Your task to perform on an android device: toggle pop-ups in chrome Image 0: 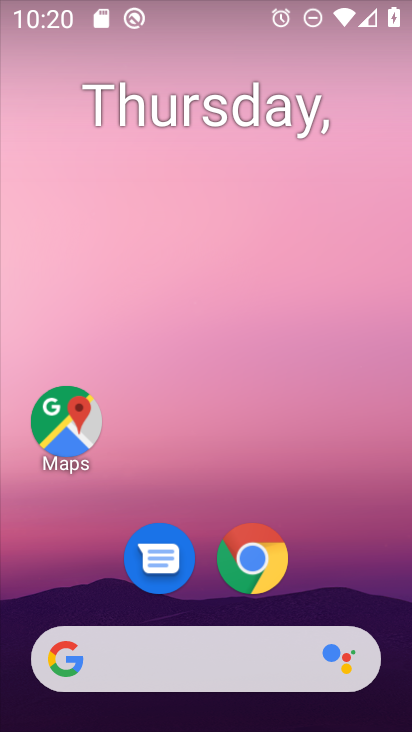
Step 0: click (254, 565)
Your task to perform on an android device: toggle pop-ups in chrome Image 1: 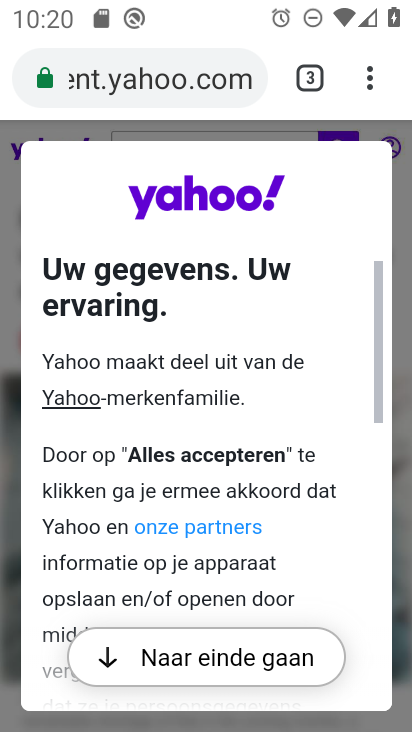
Step 1: click (363, 84)
Your task to perform on an android device: toggle pop-ups in chrome Image 2: 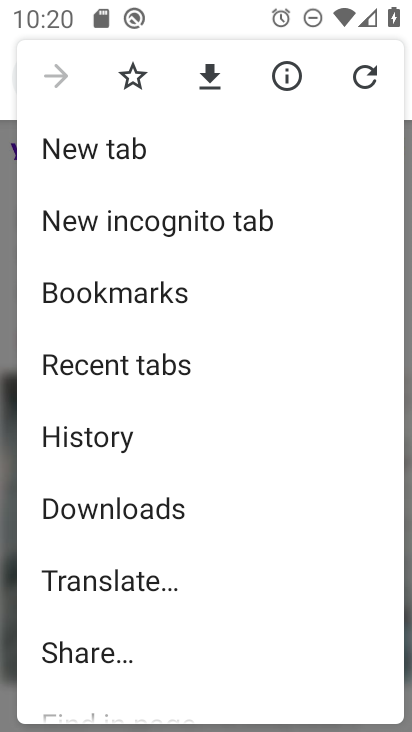
Step 2: drag from (212, 576) to (294, 122)
Your task to perform on an android device: toggle pop-ups in chrome Image 3: 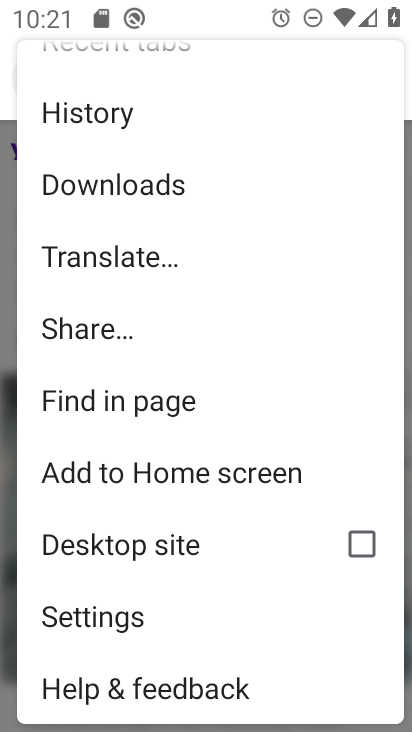
Step 3: click (74, 619)
Your task to perform on an android device: toggle pop-ups in chrome Image 4: 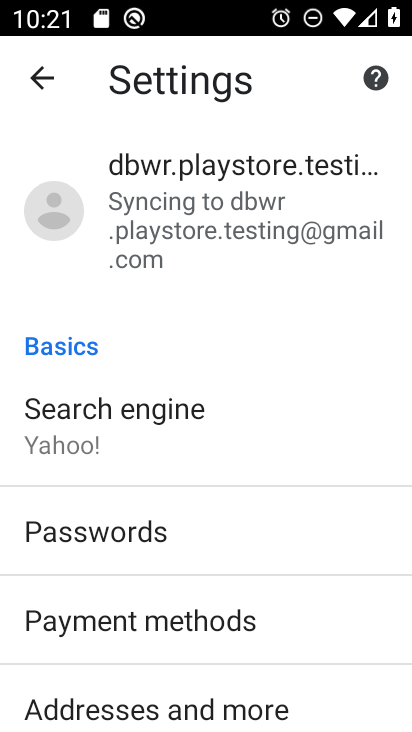
Step 4: drag from (303, 661) to (303, 220)
Your task to perform on an android device: toggle pop-ups in chrome Image 5: 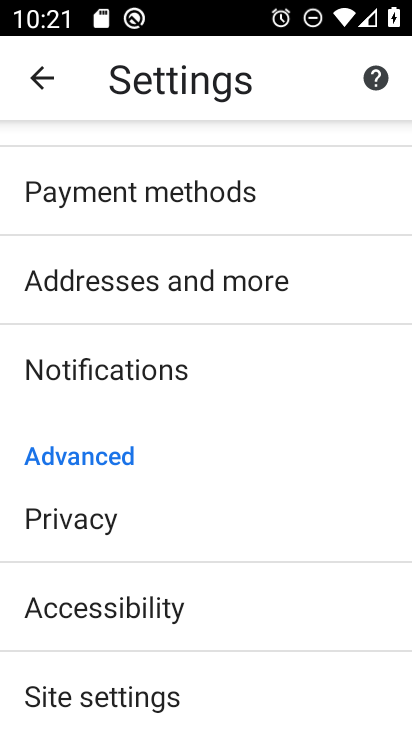
Step 5: drag from (238, 656) to (299, 207)
Your task to perform on an android device: toggle pop-ups in chrome Image 6: 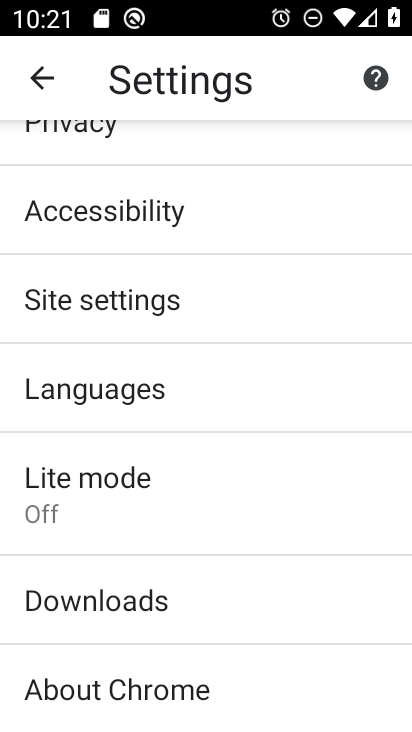
Step 6: click (71, 295)
Your task to perform on an android device: toggle pop-ups in chrome Image 7: 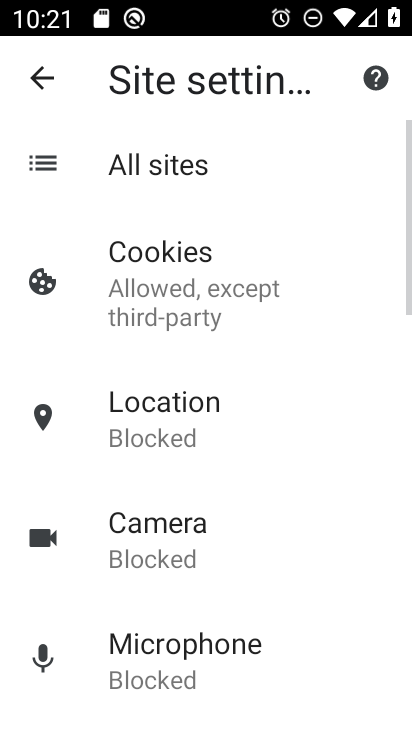
Step 7: drag from (289, 653) to (299, 192)
Your task to perform on an android device: toggle pop-ups in chrome Image 8: 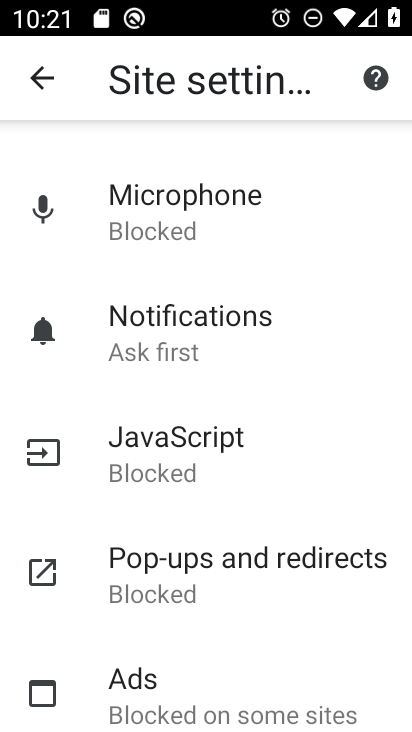
Step 8: click (149, 581)
Your task to perform on an android device: toggle pop-ups in chrome Image 9: 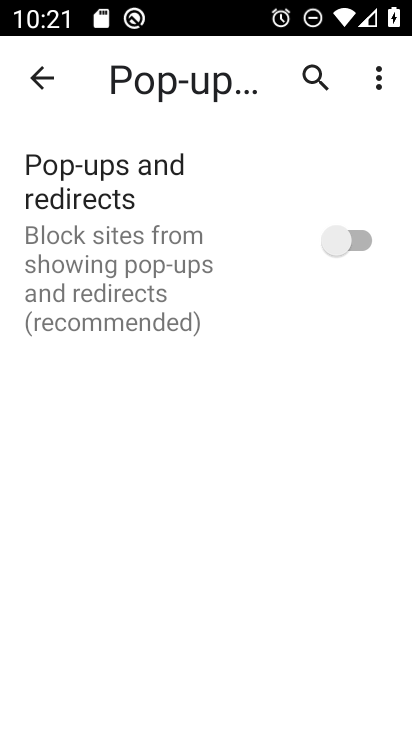
Step 9: click (360, 238)
Your task to perform on an android device: toggle pop-ups in chrome Image 10: 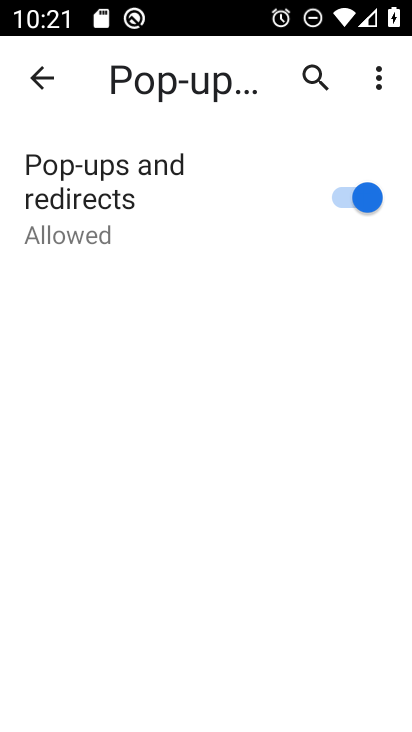
Step 10: task complete